Your task to perform on an android device: move a message to another label in the gmail app Image 0: 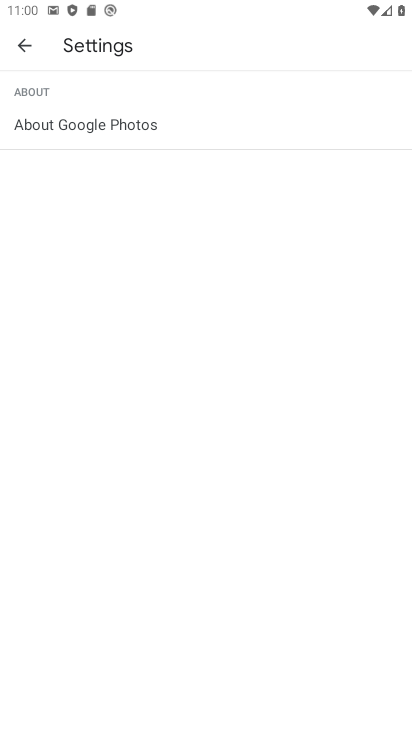
Step 0: press home button
Your task to perform on an android device: move a message to another label in the gmail app Image 1: 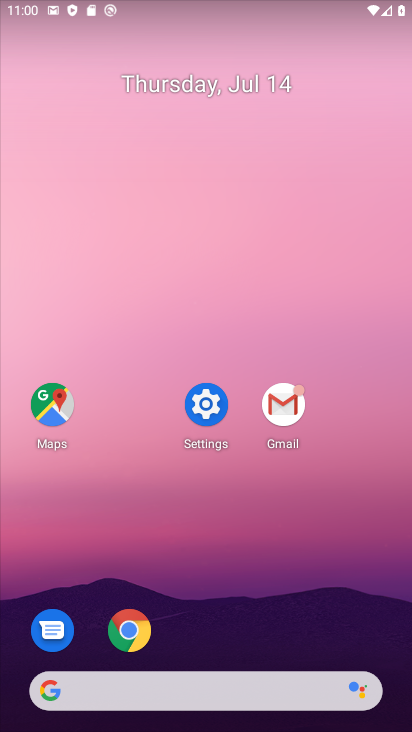
Step 1: click (281, 415)
Your task to perform on an android device: move a message to another label in the gmail app Image 2: 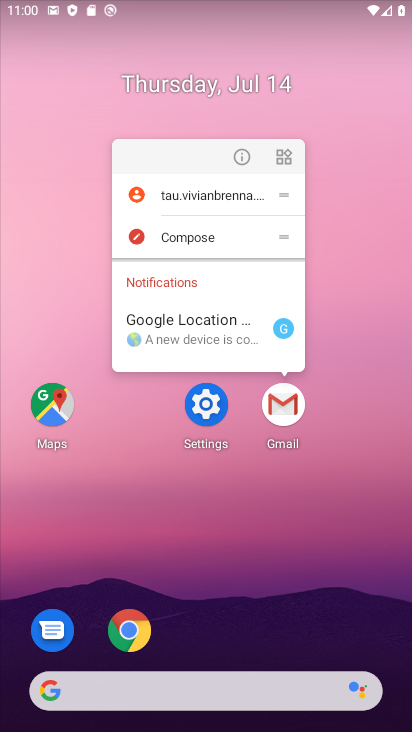
Step 2: click (281, 415)
Your task to perform on an android device: move a message to another label in the gmail app Image 3: 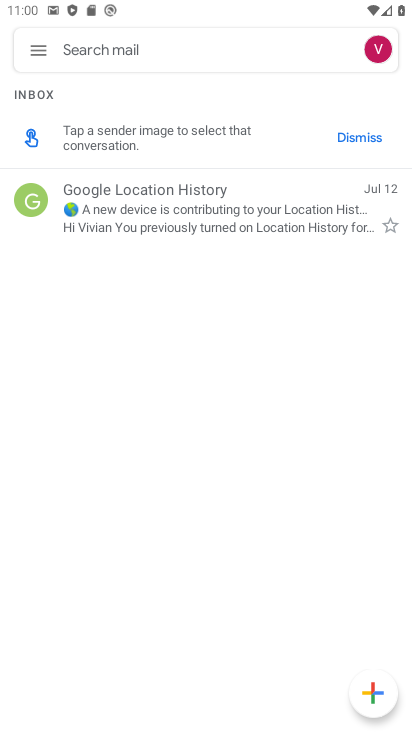
Step 3: click (318, 208)
Your task to perform on an android device: move a message to another label in the gmail app Image 4: 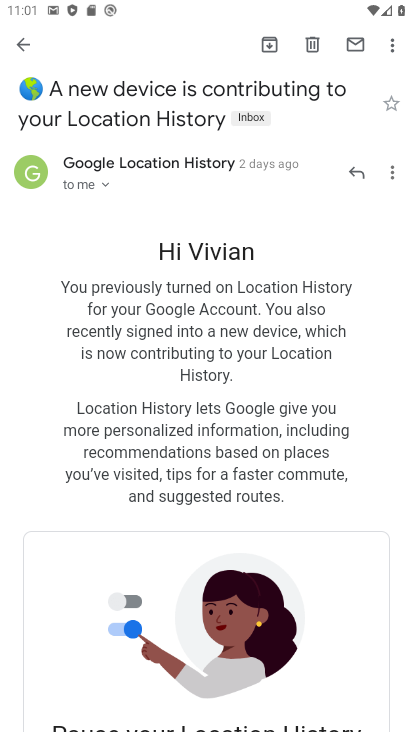
Step 4: click (261, 119)
Your task to perform on an android device: move a message to another label in the gmail app Image 5: 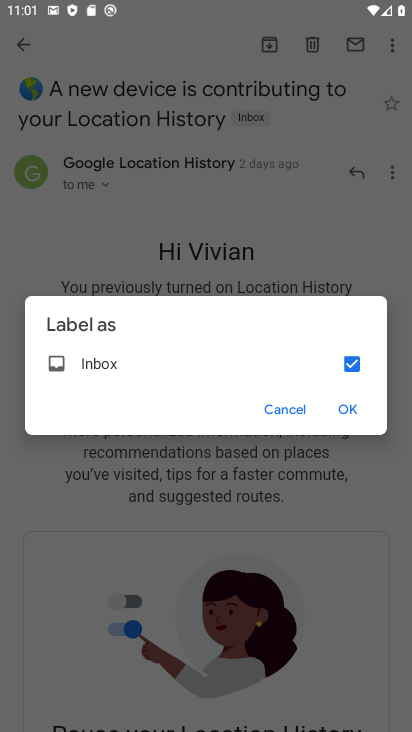
Step 5: click (16, 54)
Your task to perform on an android device: move a message to another label in the gmail app Image 6: 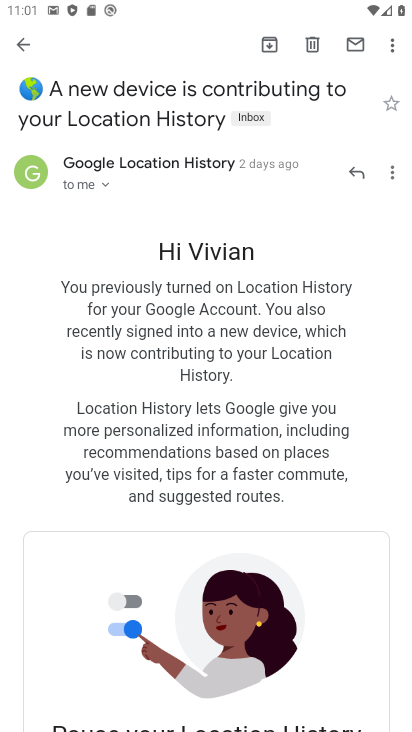
Step 6: click (19, 41)
Your task to perform on an android device: move a message to another label in the gmail app Image 7: 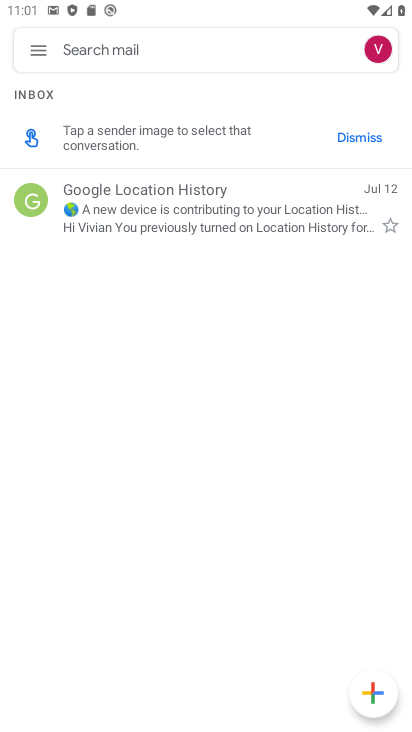
Step 7: click (37, 50)
Your task to perform on an android device: move a message to another label in the gmail app Image 8: 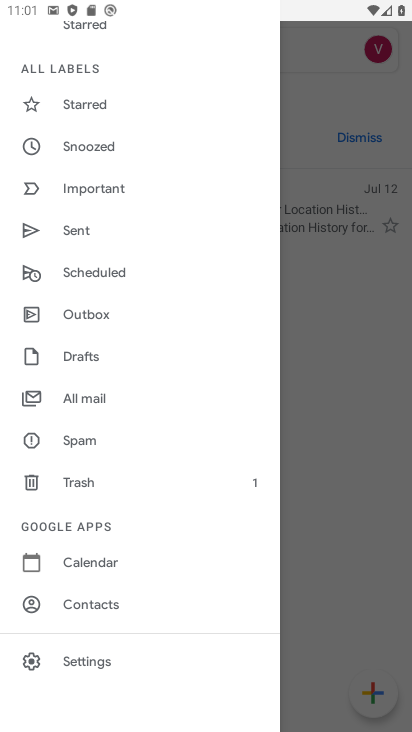
Step 8: drag from (167, 131) to (226, 408)
Your task to perform on an android device: move a message to another label in the gmail app Image 9: 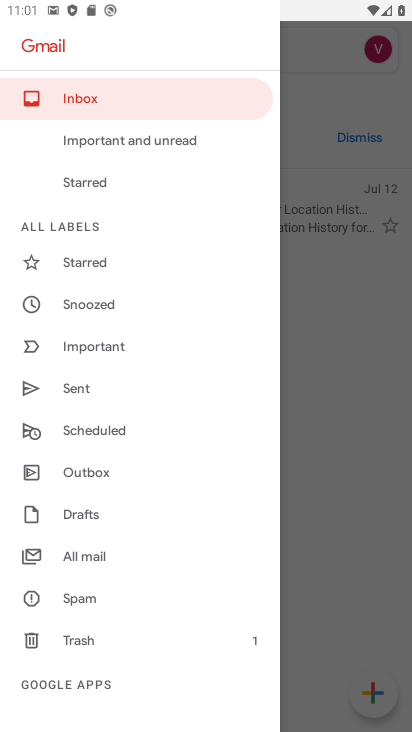
Step 9: click (316, 242)
Your task to perform on an android device: move a message to another label in the gmail app Image 10: 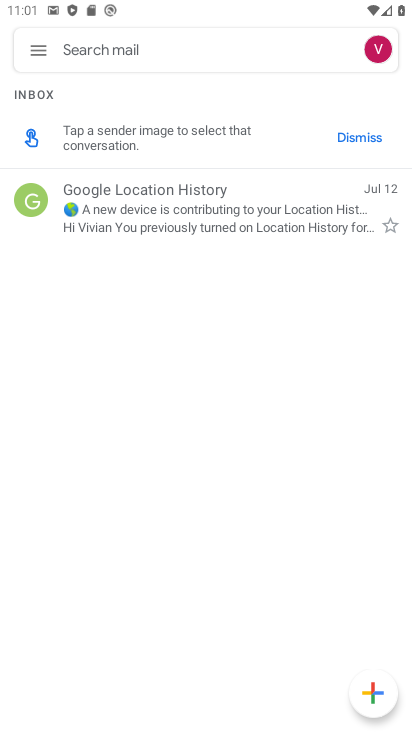
Step 10: click (386, 225)
Your task to perform on an android device: move a message to another label in the gmail app Image 11: 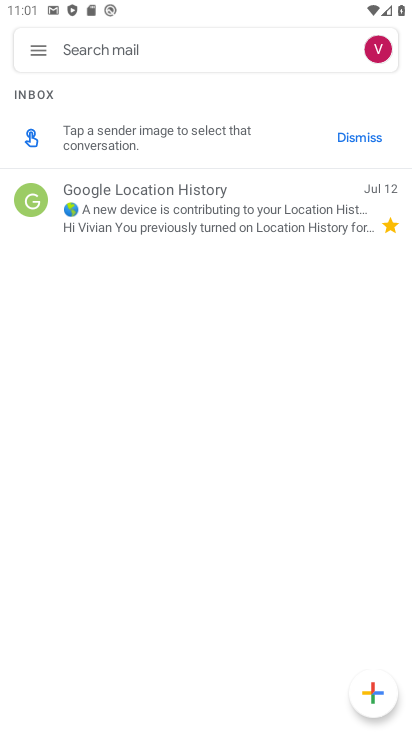
Step 11: task complete